Your task to perform on an android device: toggle pop-ups in chrome Image 0: 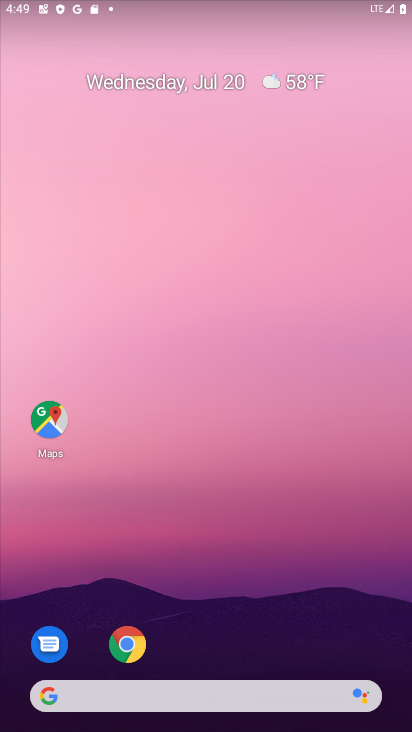
Step 0: press home button
Your task to perform on an android device: toggle pop-ups in chrome Image 1: 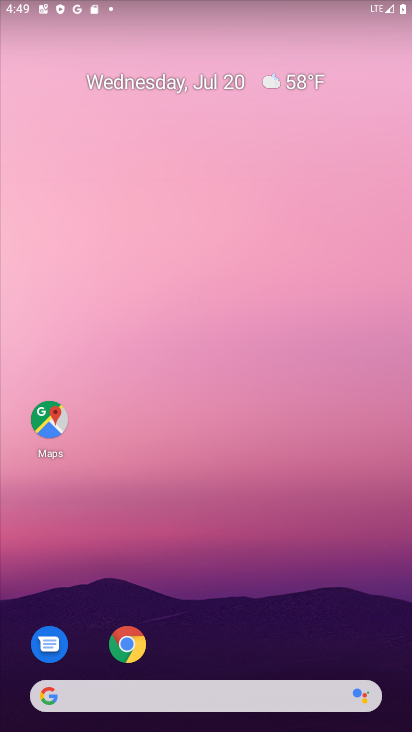
Step 1: drag from (256, 668) to (319, 7)
Your task to perform on an android device: toggle pop-ups in chrome Image 2: 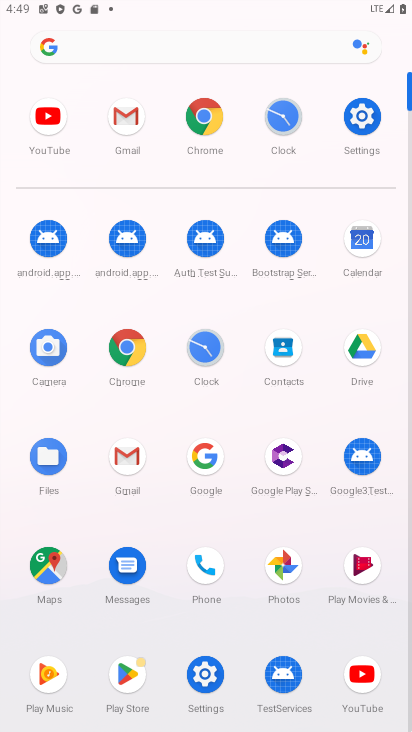
Step 2: click (203, 122)
Your task to perform on an android device: toggle pop-ups in chrome Image 3: 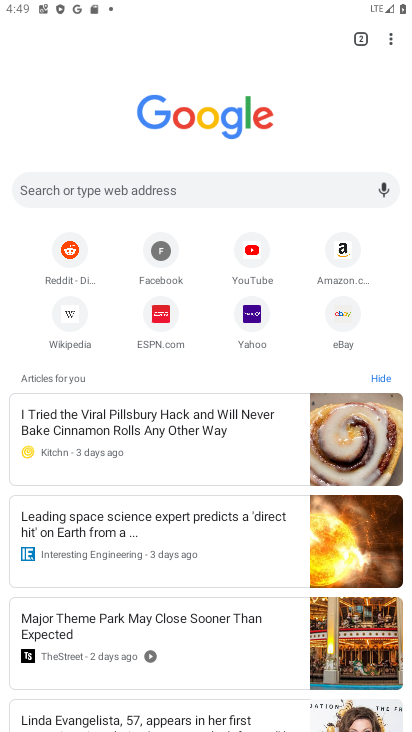
Step 3: drag from (393, 42) to (247, 325)
Your task to perform on an android device: toggle pop-ups in chrome Image 4: 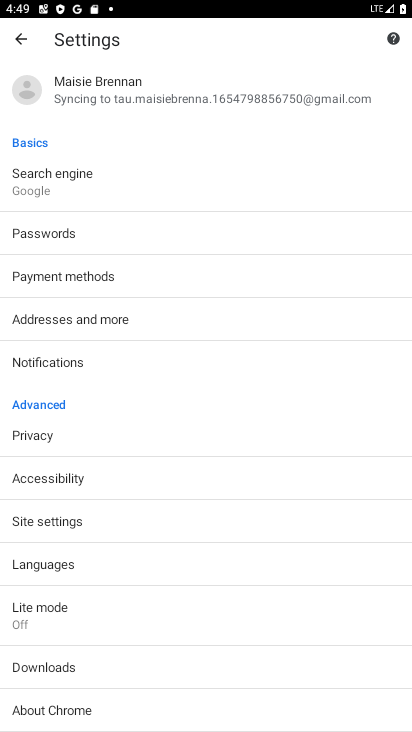
Step 4: click (39, 516)
Your task to perform on an android device: toggle pop-ups in chrome Image 5: 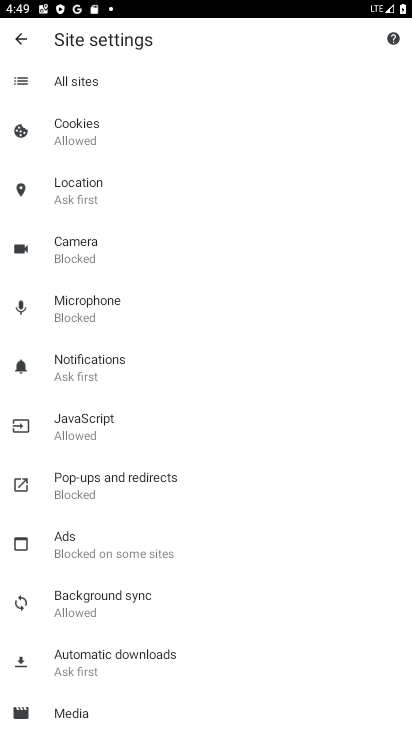
Step 5: click (85, 490)
Your task to perform on an android device: toggle pop-ups in chrome Image 6: 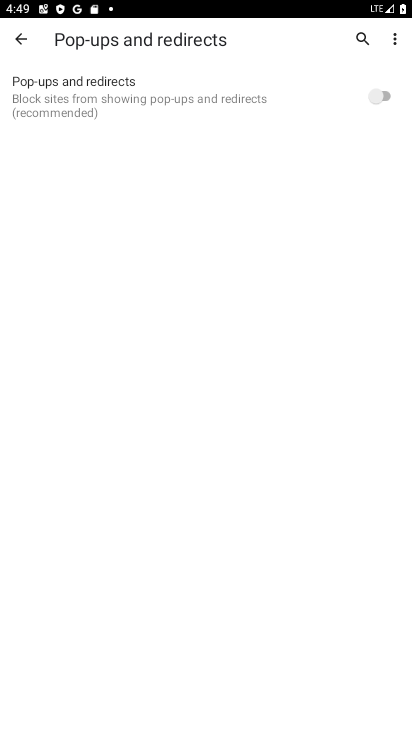
Step 6: click (380, 93)
Your task to perform on an android device: toggle pop-ups in chrome Image 7: 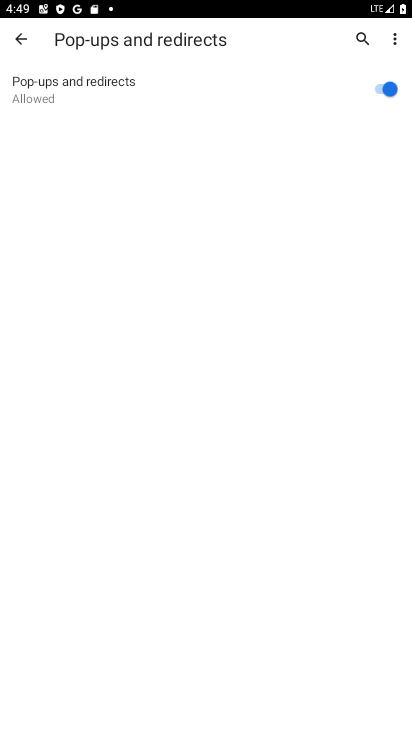
Step 7: task complete